Your task to perform on an android device: check data usage Image 0: 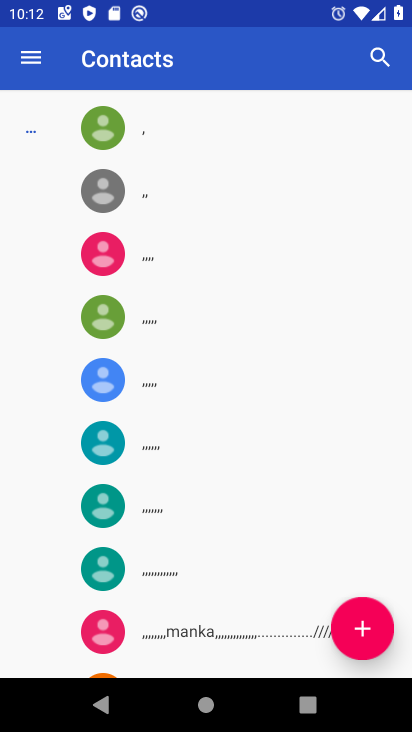
Step 0: press back button
Your task to perform on an android device: check data usage Image 1: 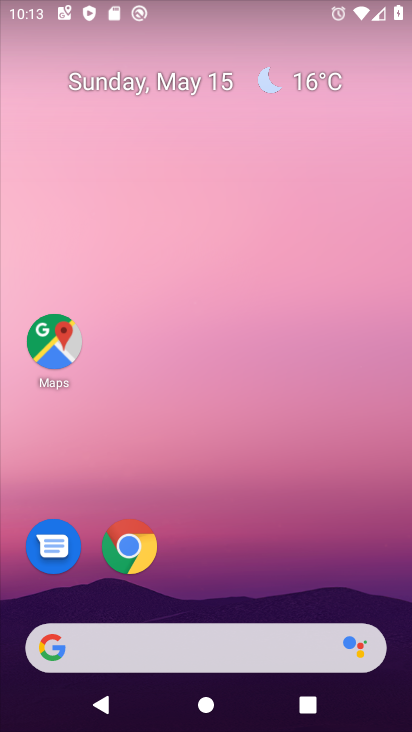
Step 1: click (269, 196)
Your task to perform on an android device: check data usage Image 2: 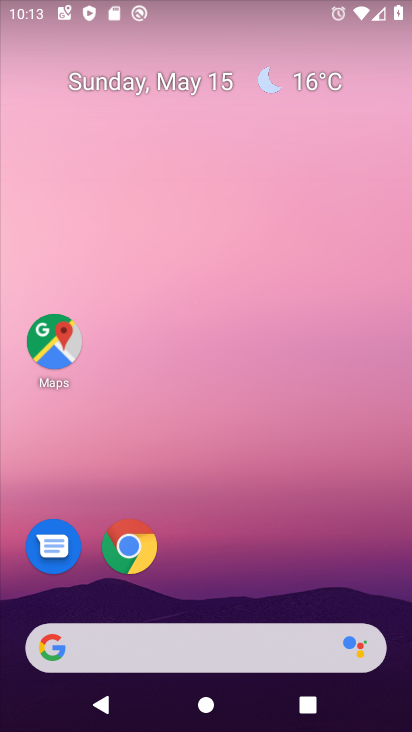
Step 2: drag from (182, 496) to (229, 190)
Your task to perform on an android device: check data usage Image 3: 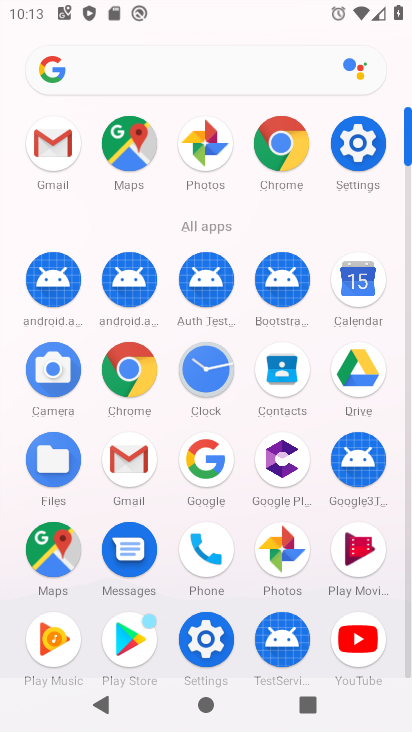
Step 3: click (347, 124)
Your task to perform on an android device: check data usage Image 4: 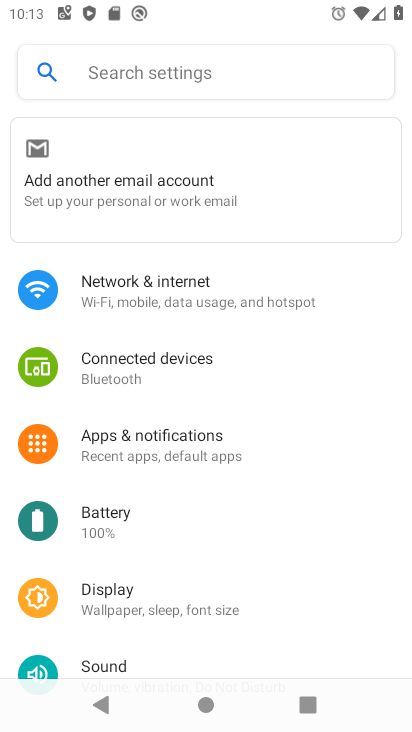
Step 4: click (147, 306)
Your task to perform on an android device: check data usage Image 5: 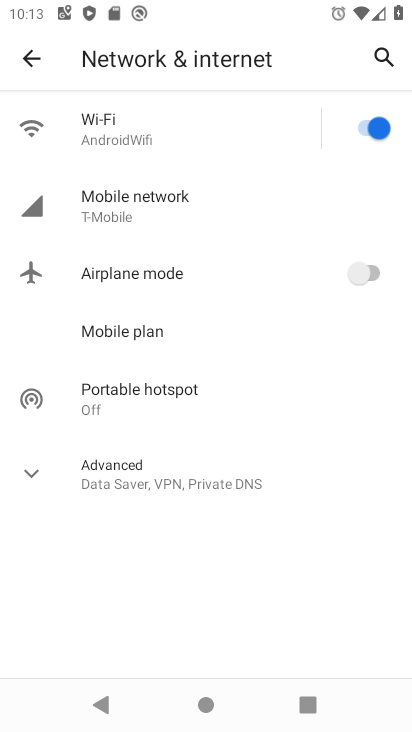
Step 5: click (139, 203)
Your task to perform on an android device: check data usage Image 6: 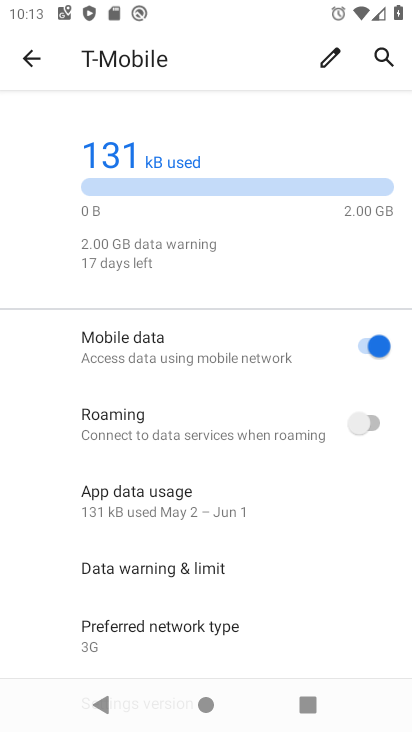
Step 6: task complete